Your task to perform on an android device: Search for "lg ultragear" on newegg, select the first entry, add it to the cart, then select checkout. Image 0: 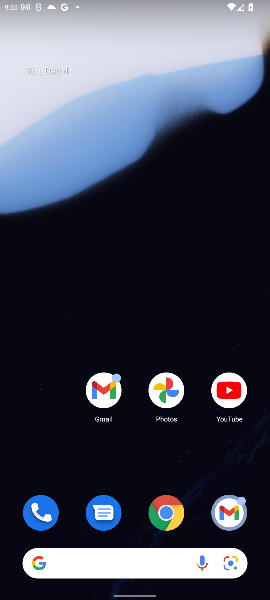
Step 0: click (165, 502)
Your task to perform on an android device: Search for "lg ultragear" on newegg, select the first entry, add it to the cart, then select checkout. Image 1: 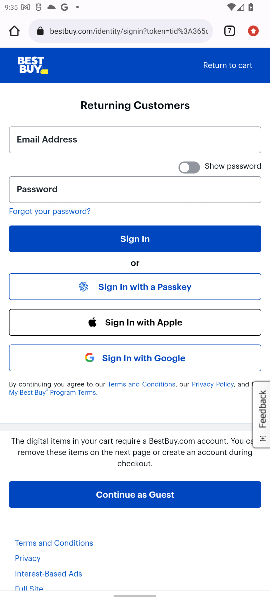
Step 1: click (229, 28)
Your task to perform on an android device: Search for "lg ultragear" on newegg, select the first entry, add it to the cart, then select checkout. Image 2: 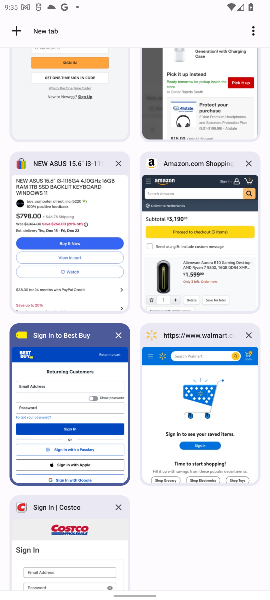
Step 2: click (73, 98)
Your task to perform on an android device: Search for "lg ultragear" on newegg, select the first entry, add it to the cart, then select checkout. Image 3: 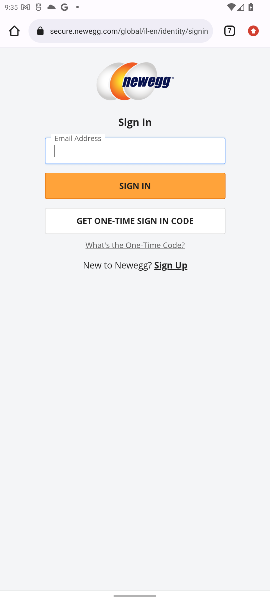
Step 3: press back button
Your task to perform on an android device: Search for "lg ultragear" on newegg, select the first entry, add it to the cart, then select checkout. Image 4: 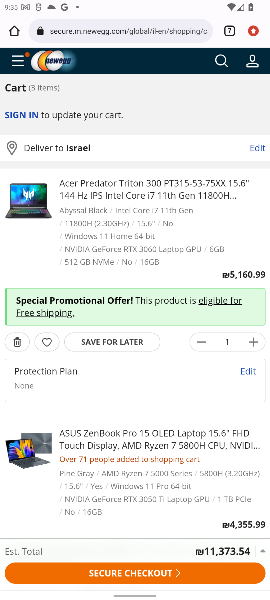
Step 4: click (222, 62)
Your task to perform on an android device: Search for "lg ultragear" on newegg, select the first entry, add it to the cart, then select checkout. Image 5: 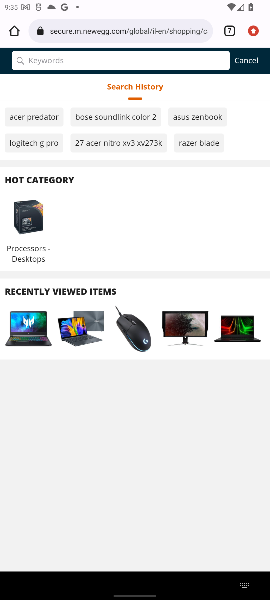
Step 5: type "lg ultragear""
Your task to perform on an android device: Search for "lg ultragear" on newegg, select the first entry, add it to the cart, then select checkout. Image 6: 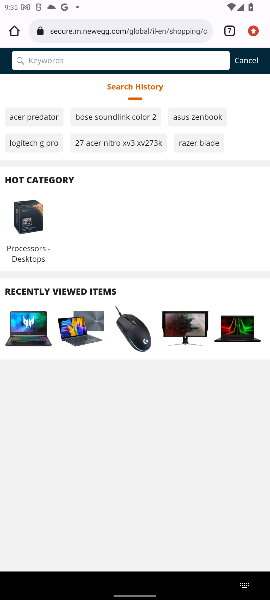
Step 6: type "lg ultragear""
Your task to perform on an android device: Search for "lg ultragear" on newegg, select the first entry, add it to the cart, then select checkout. Image 7: 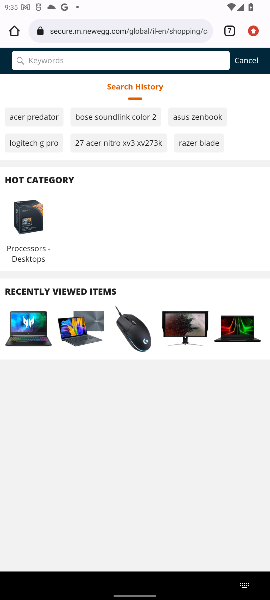
Step 7: click (245, 53)
Your task to perform on an android device: Search for "lg ultragear" on newegg, select the first entry, add it to the cart, then select checkout. Image 8: 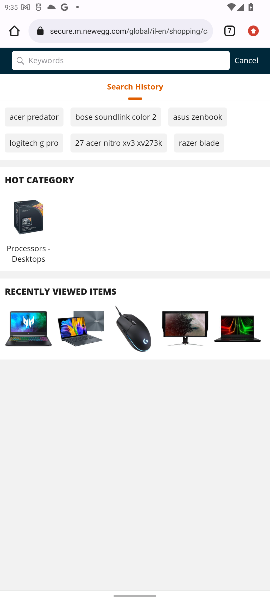
Step 8: click (246, 62)
Your task to perform on an android device: Search for "lg ultragear" on newegg, select the first entry, add it to the cart, then select checkout. Image 9: 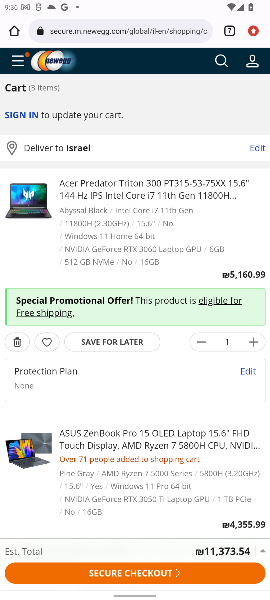
Step 9: click (223, 59)
Your task to perform on an android device: Search for "lg ultragear" on newegg, select the first entry, add it to the cart, then select checkout. Image 10: 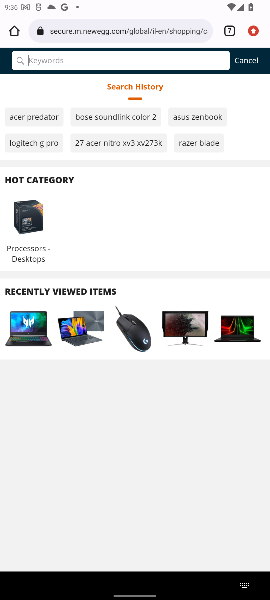
Step 10: type "lg ultragear""
Your task to perform on an android device: Search for "lg ultragear" on newegg, select the first entry, add it to the cart, then select checkout. Image 11: 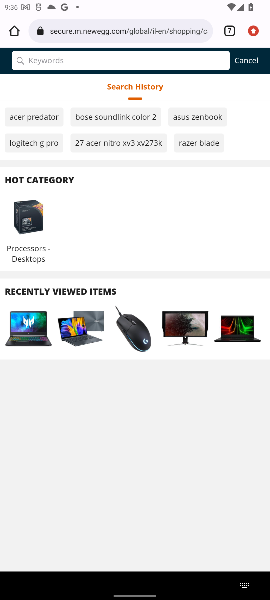
Step 11: task complete